Your task to perform on an android device: Go to Google Image 0: 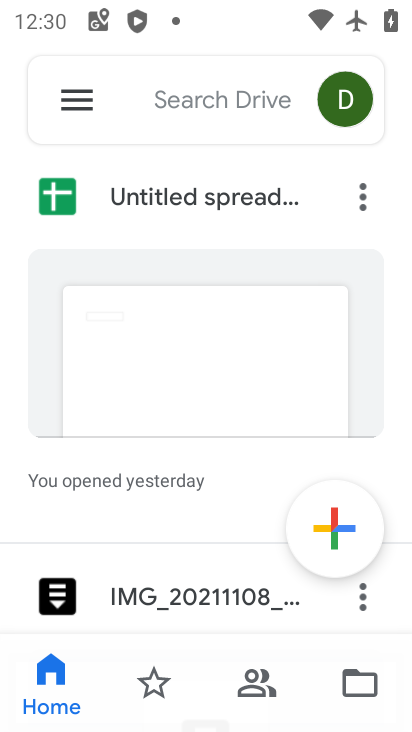
Step 0: press home button
Your task to perform on an android device: Go to Google Image 1: 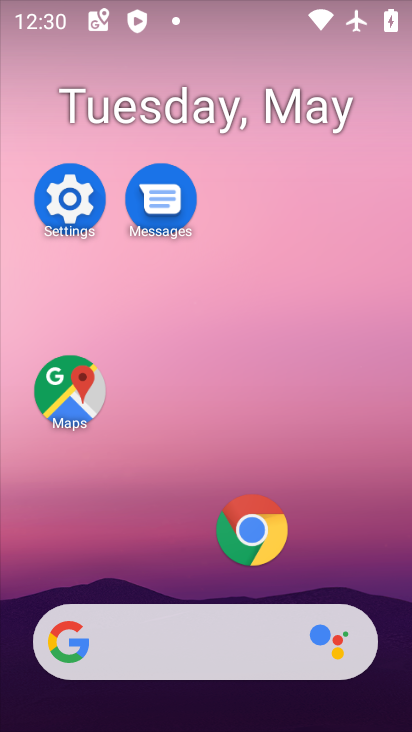
Step 1: drag from (205, 535) to (277, 192)
Your task to perform on an android device: Go to Google Image 2: 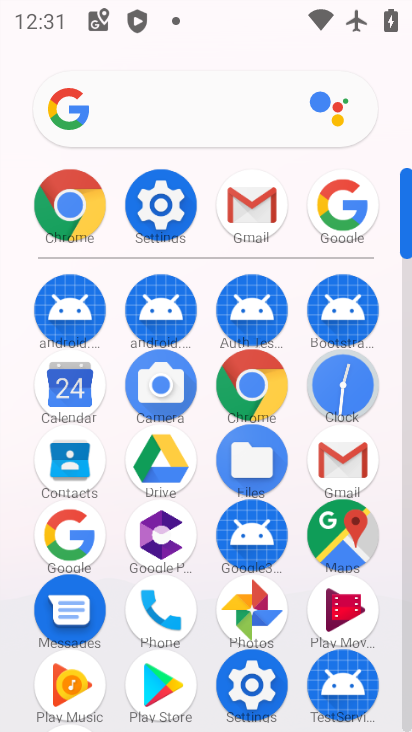
Step 2: click (348, 226)
Your task to perform on an android device: Go to Google Image 3: 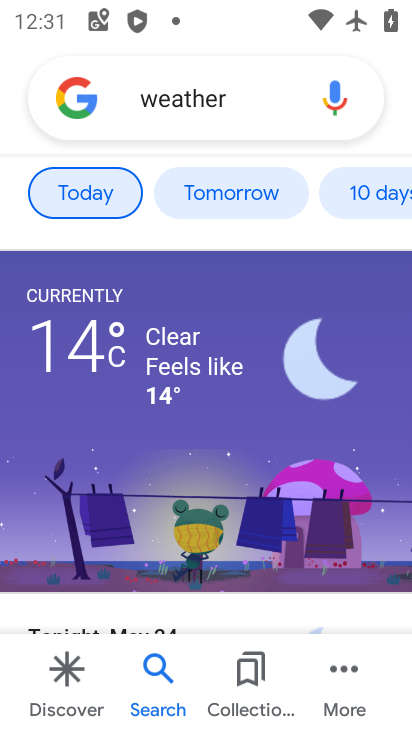
Step 3: task complete